Your task to perform on an android device: allow notifications from all sites in the chrome app Image 0: 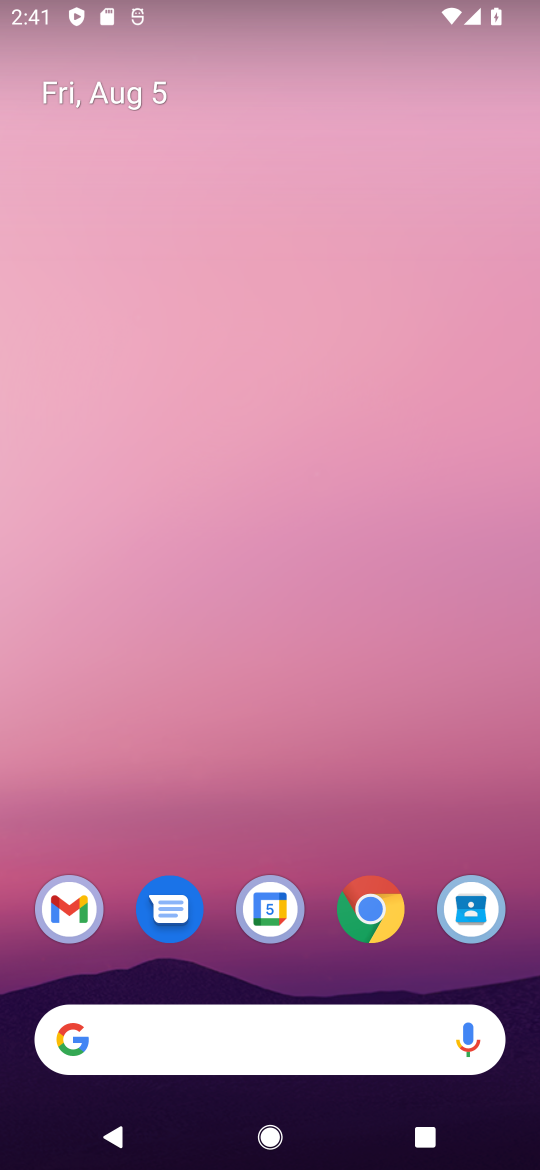
Step 0: click (356, 897)
Your task to perform on an android device: allow notifications from all sites in the chrome app Image 1: 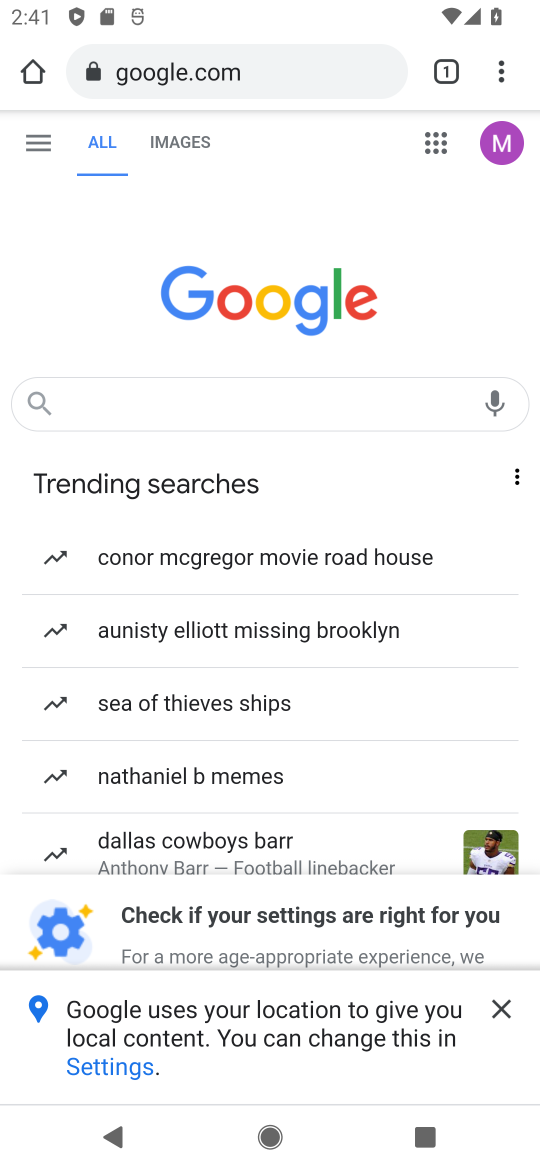
Step 1: click (504, 68)
Your task to perform on an android device: allow notifications from all sites in the chrome app Image 2: 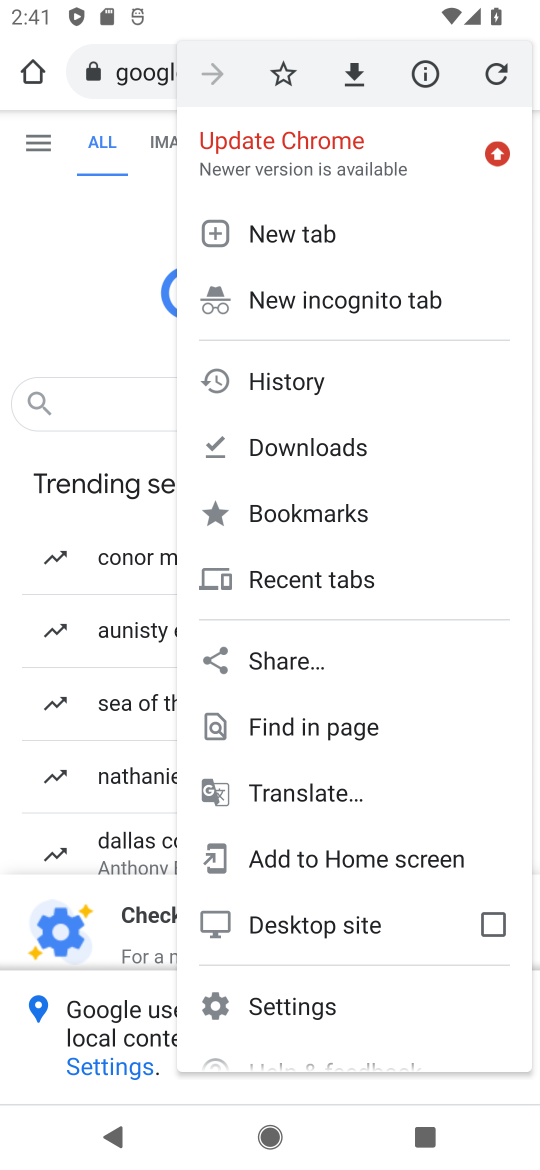
Step 2: click (363, 1003)
Your task to perform on an android device: allow notifications from all sites in the chrome app Image 3: 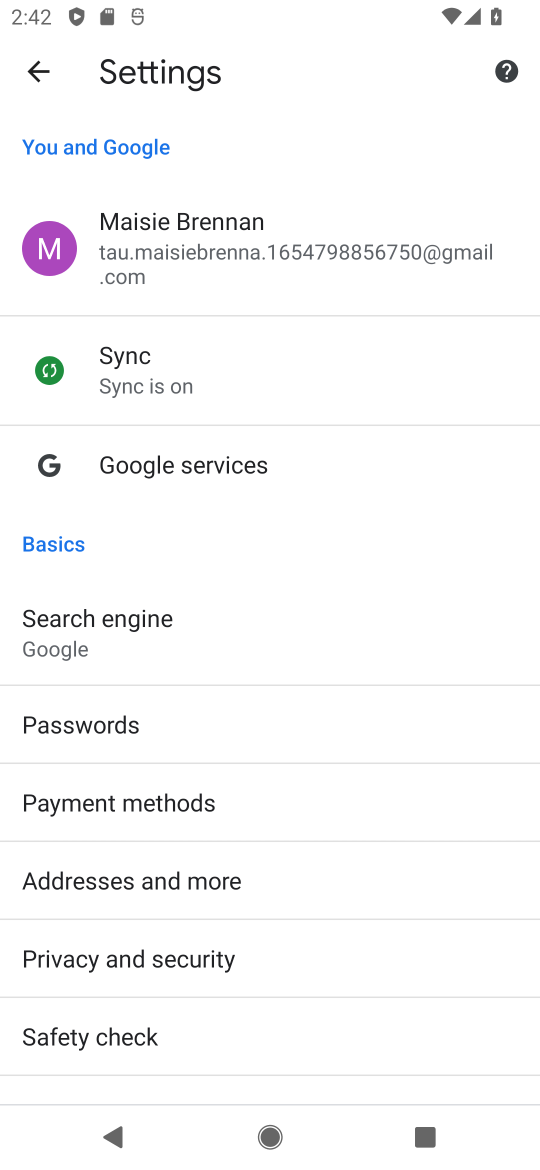
Step 3: task complete